Your task to perform on an android device: show emergency info Image 0: 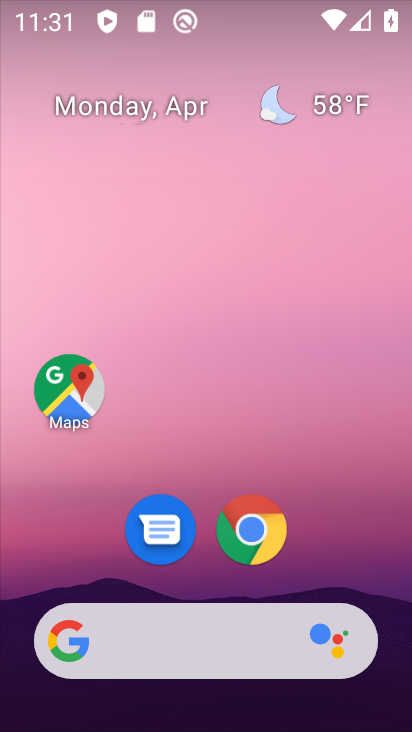
Step 0: drag from (375, 603) to (306, 44)
Your task to perform on an android device: show emergency info Image 1: 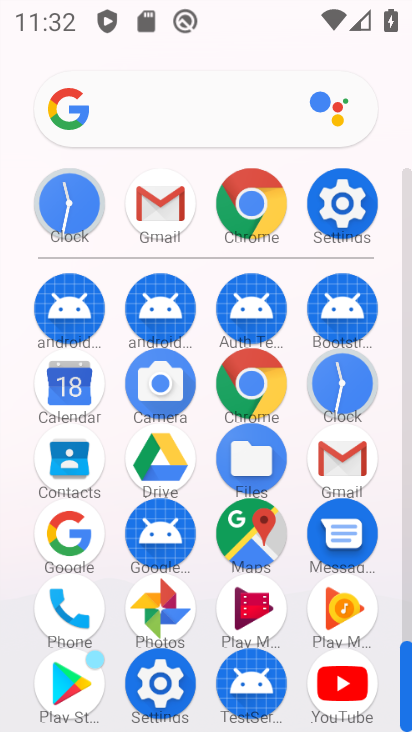
Step 1: click (341, 216)
Your task to perform on an android device: show emergency info Image 2: 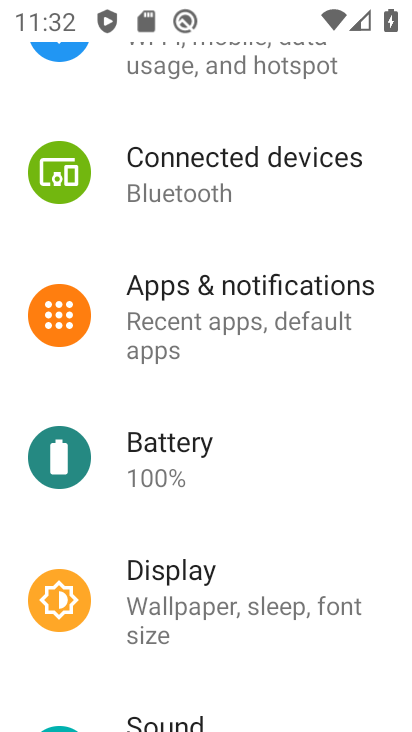
Step 2: drag from (159, 650) to (235, 185)
Your task to perform on an android device: show emergency info Image 3: 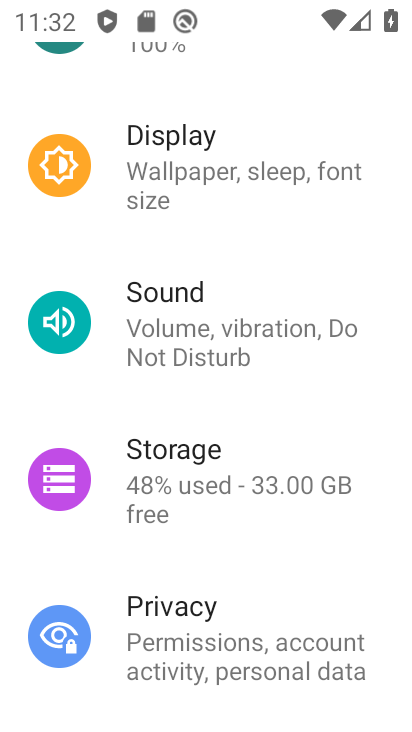
Step 3: drag from (167, 602) to (255, 153)
Your task to perform on an android device: show emergency info Image 4: 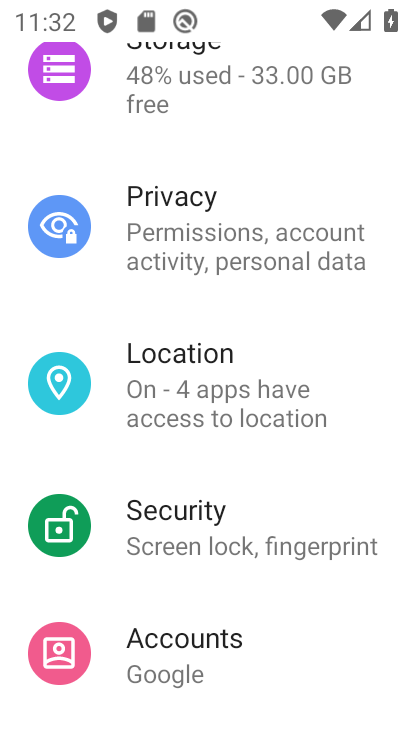
Step 4: drag from (148, 593) to (296, 153)
Your task to perform on an android device: show emergency info Image 5: 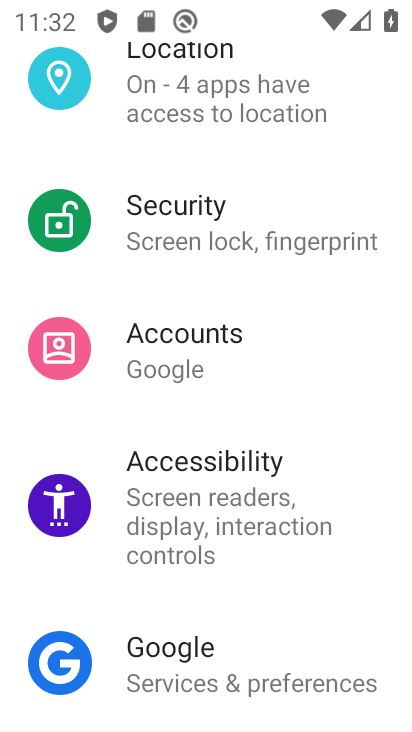
Step 5: drag from (172, 653) to (265, 158)
Your task to perform on an android device: show emergency info Image 6: 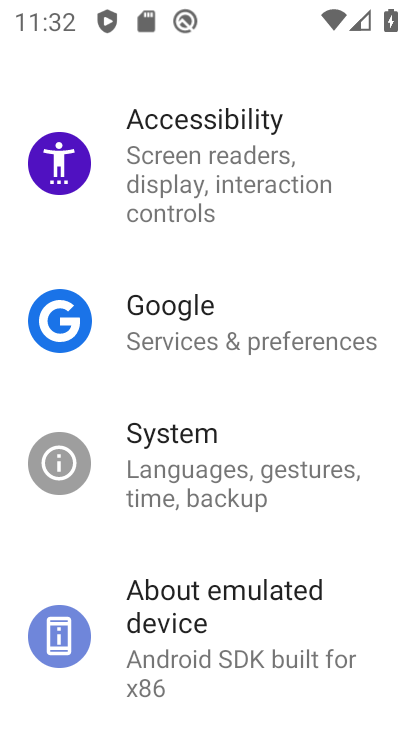
Step 6: drag from (260, 579) to (274, 156)
Your task to perform on an android device: show emergency info Image 7: 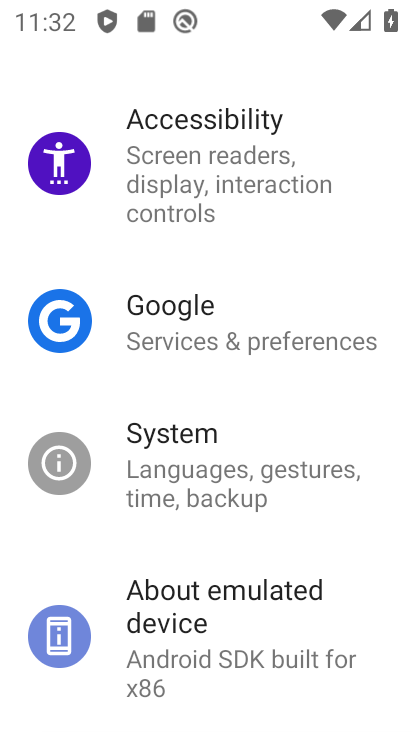
Step 7: drag from (283, 154) to (263, 470)
Your task to perform on an android device: show emergency info Image 8: 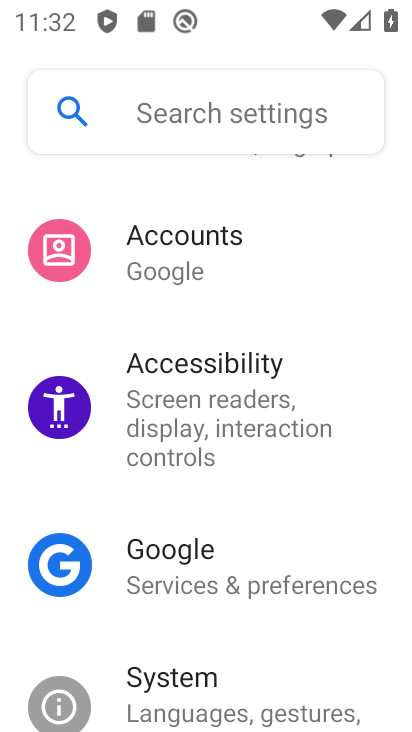
Step 8: drag from (267, 195) to (300, 629)
Your task to perform on an android device: show emergency info Image 9: 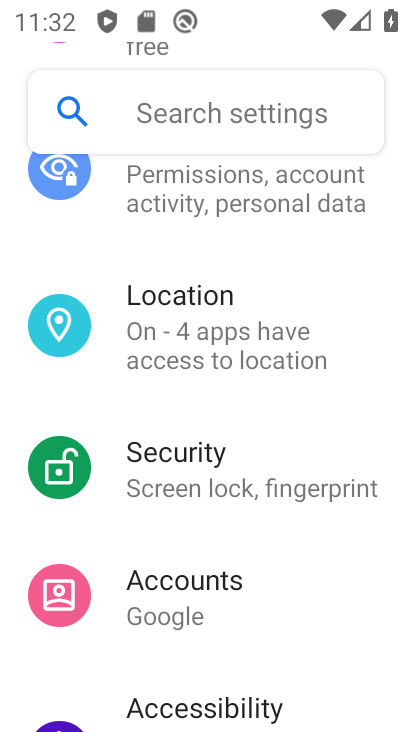
Step 9: drag from (134, 656) to (220, 175)
Your task to perform on an android device: show emergency info Image 10: 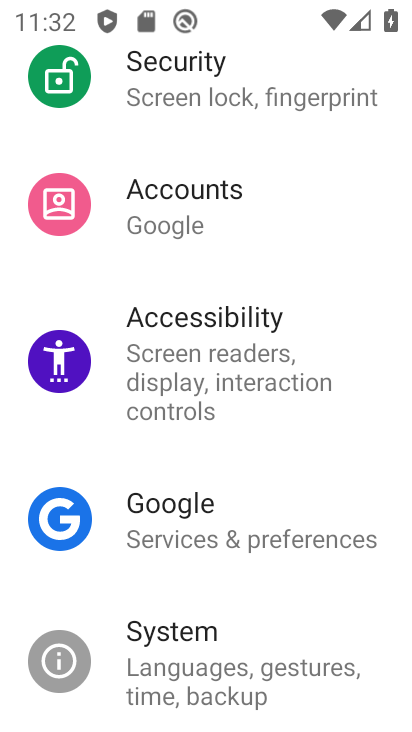
Step 10: drag from (120, 694) to (265, 125)
Your task to perform on an android device: show emergency info Image 11: 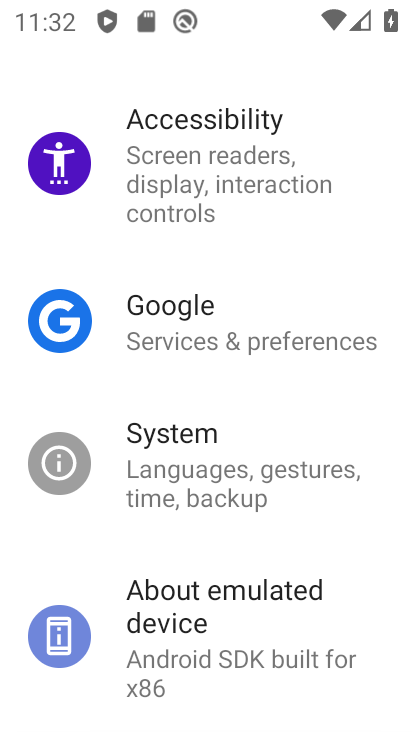
Step 11: click (182, 640)
Your task to perform on an android device: show emergency info Image 12: 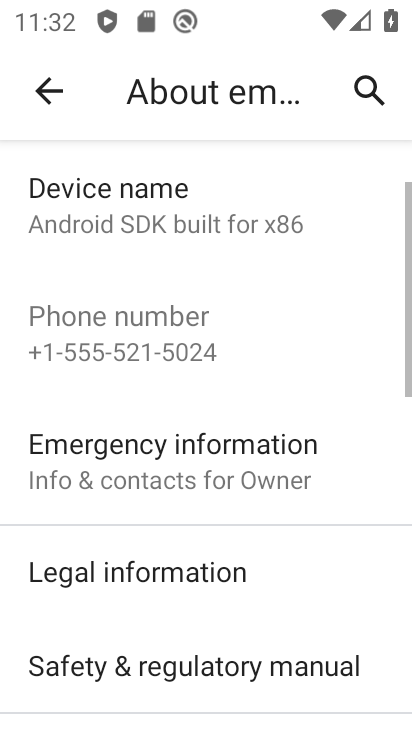
Step 12: click (263, 495)
Your task to perform on an android device: show emergency info Image 13: 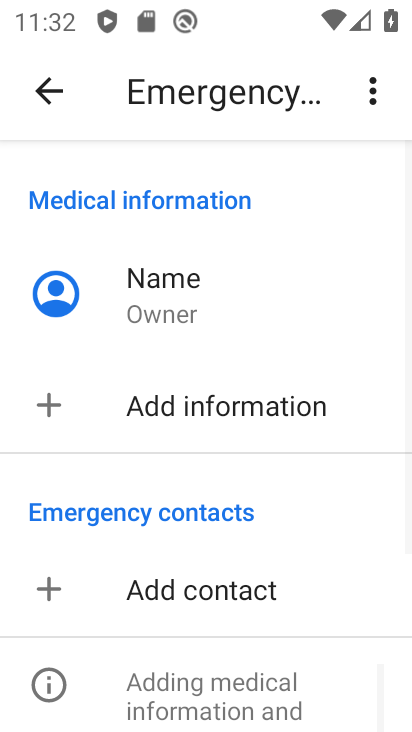
Step 13: task complete